Your task to perform on an android device: Open the phone app and click the voicemail tab. Image 0: 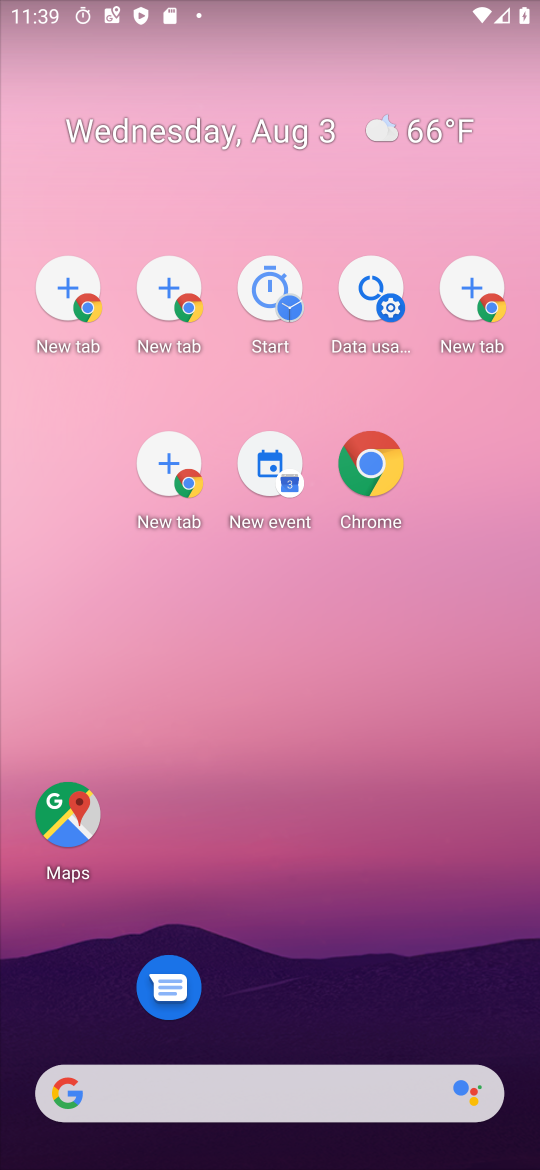
Step 0: click (50, 132)
Your task to perform on an android device: Open the phone app and click the voicemail tab. Image 1: 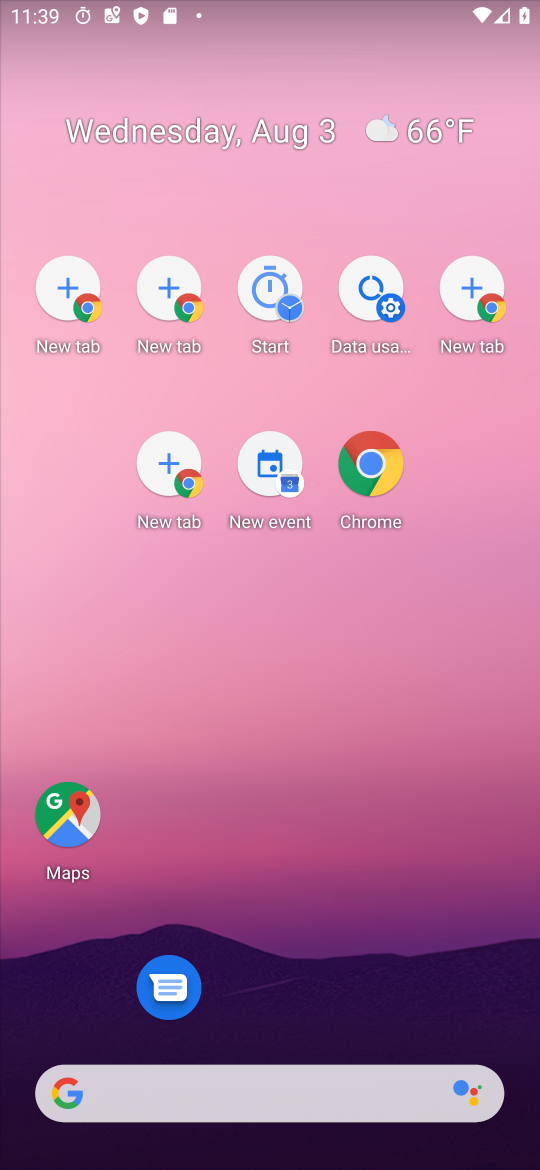
Step 1: drag from (351, 1079) to (308, 452)
Your task to perform on an android device: Open the phone app and click the voicemail tab. Image 2: 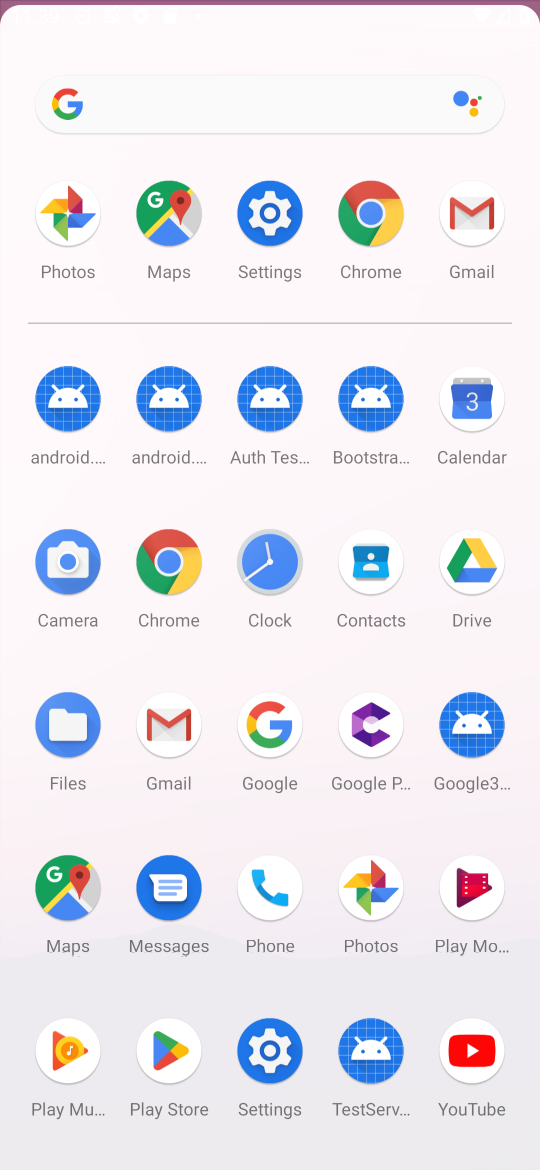
Step 2: click (208, 261)
Your task to perform on an android device: Open the phone app and click the voicemail tab. Image 3: 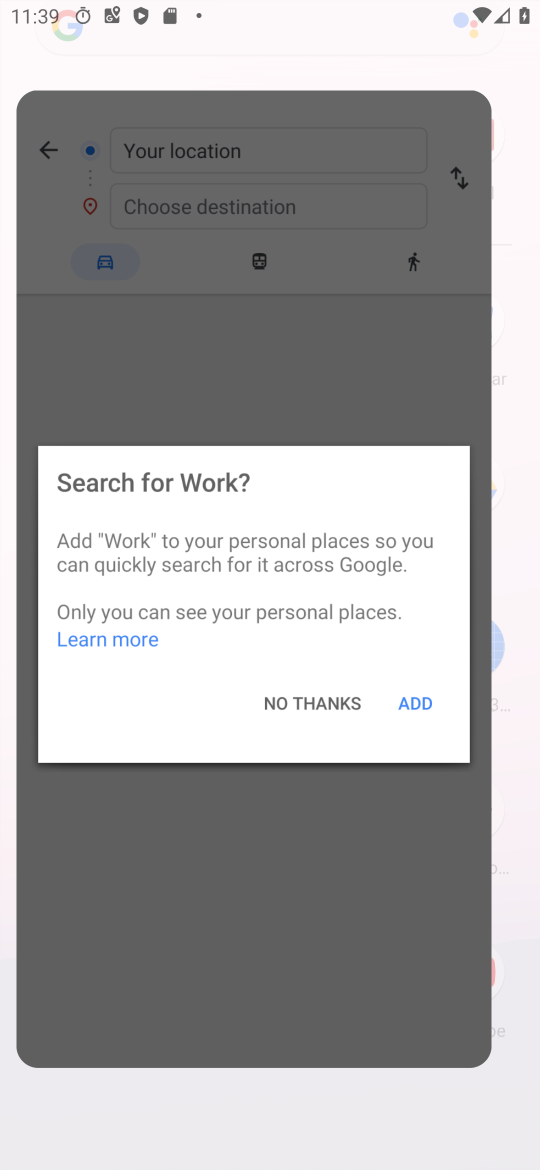
Step 3: click (265, 863)
Your task to perform on an android device: Open the phone app and click the voicemail tab. Image 4: 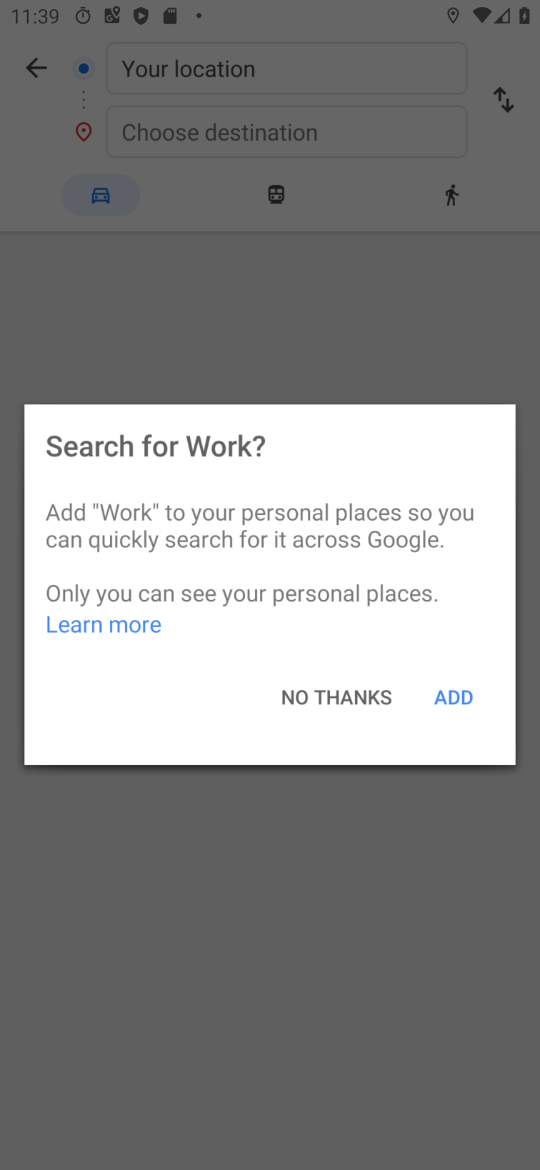
Step 4: click (265, 866)
Your task to perform on an android device: Open the phone app and click the voicemail tab. Image 5: 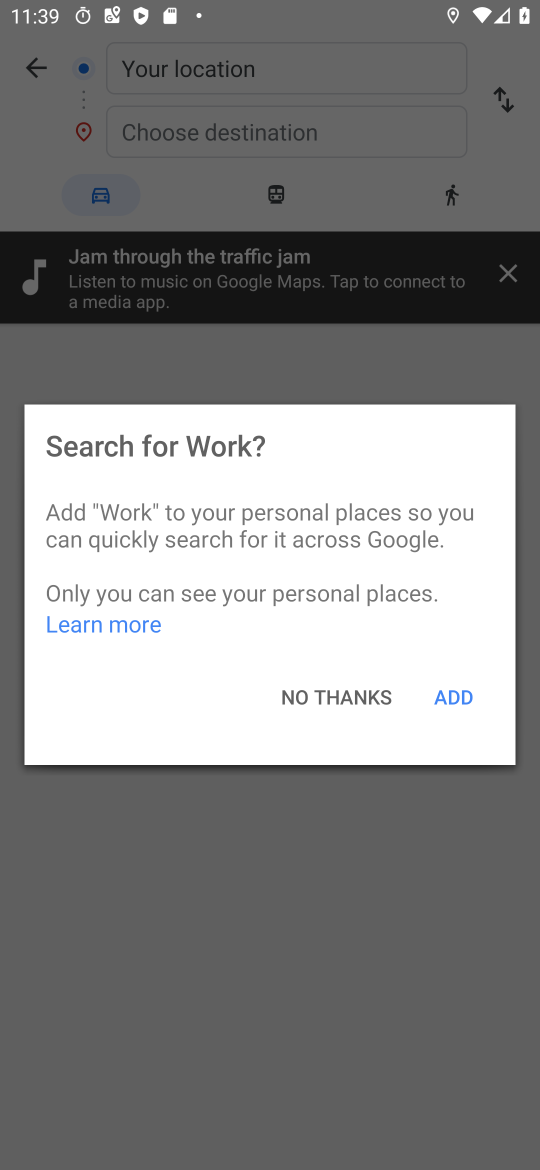
Step 5: click (321, 677)
Your task to perform on an android device: Open the phone app and click the voicemail tab. Image 6: 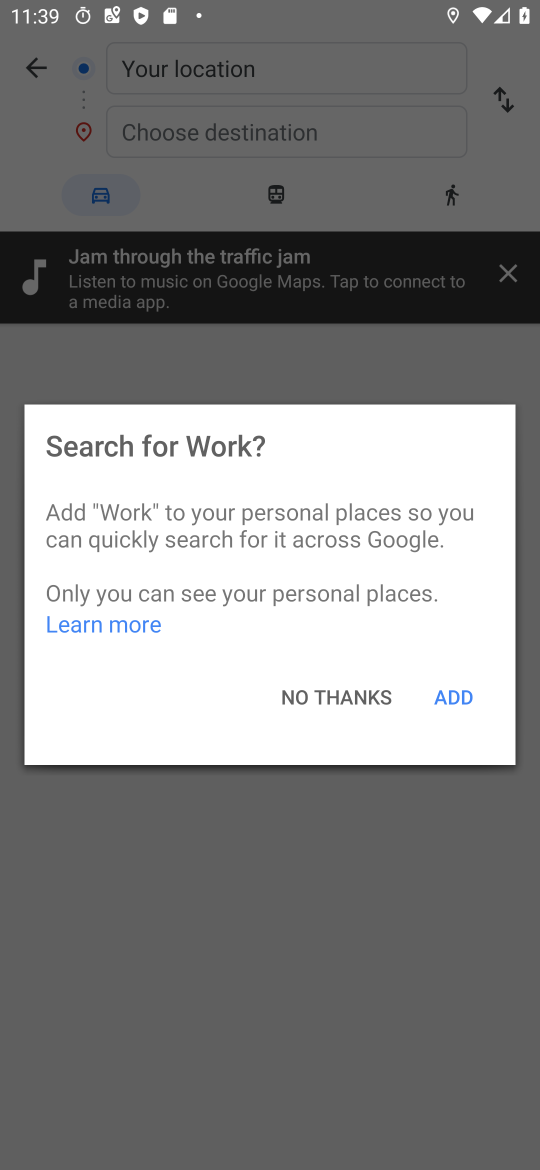
Step 6: click (324, 678)
Your task to perform on an android device: Open the phone app and click the voicemail tab. Image 7: 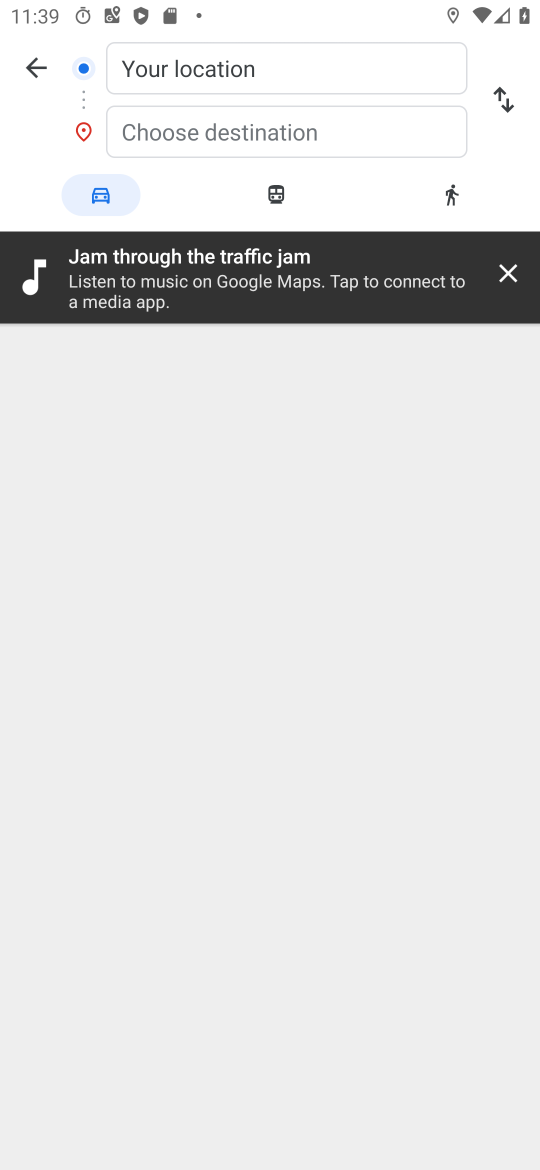
Step 7: click (54, 85)
Your task to perform on an android device: Open the phone app and click the voicemail tab. Image 8: 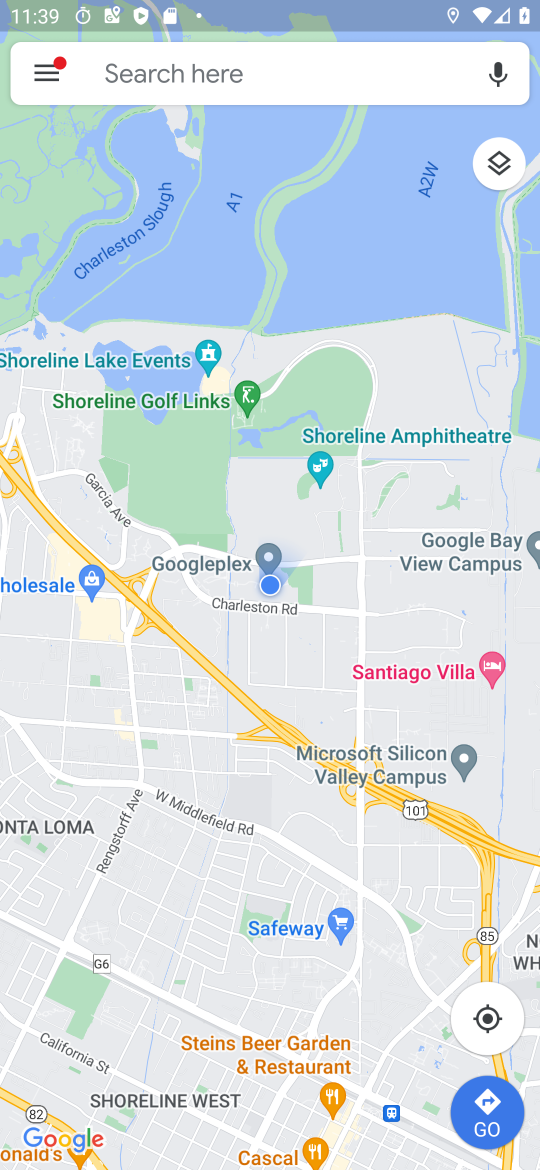
Step 8: press back button
Your task to perform on an android device: Open the phone app and click the voicemail tab. Image 9: 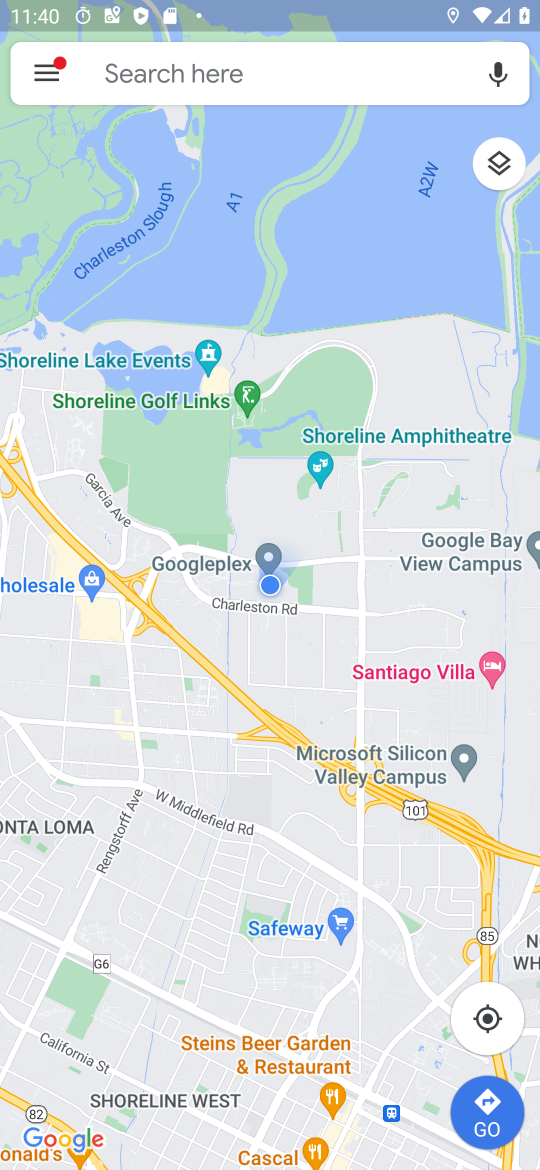
Step 9: press back button
Your task to perform on an android device: Open the phone app and click the voicemail tab. Image 10: 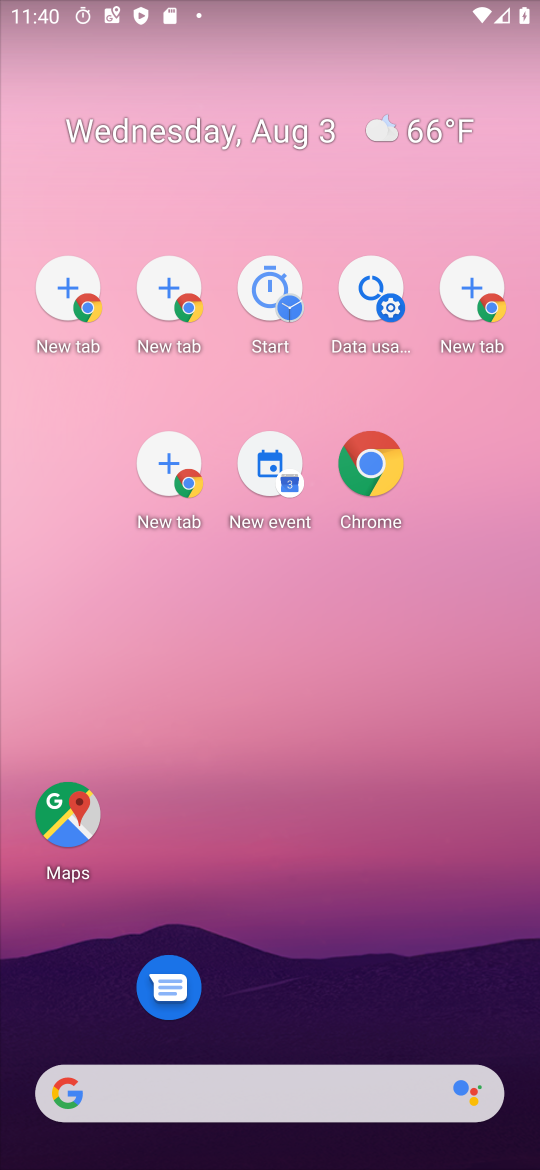
Step 10: drag from (313, 693) to (276, 296)
Your task to perform on an android device: Open the phone app and click the voicemail tab. Image 11: 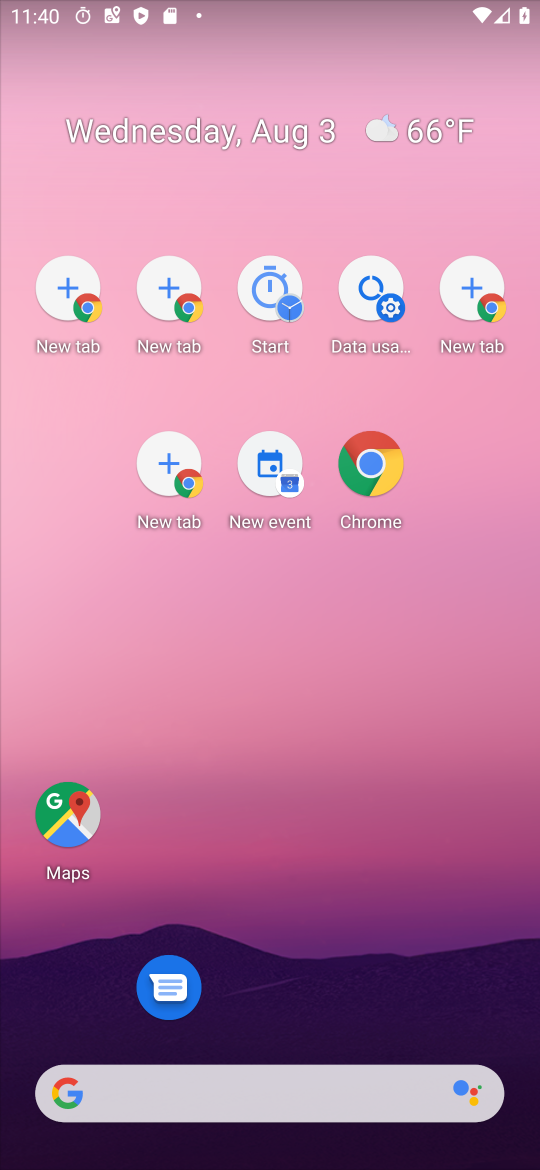
Step 11: drag from (300, 991) to (276, 293)
Your task to perform on an android device: Open the phone app and click the voicemail tab. Image 12: 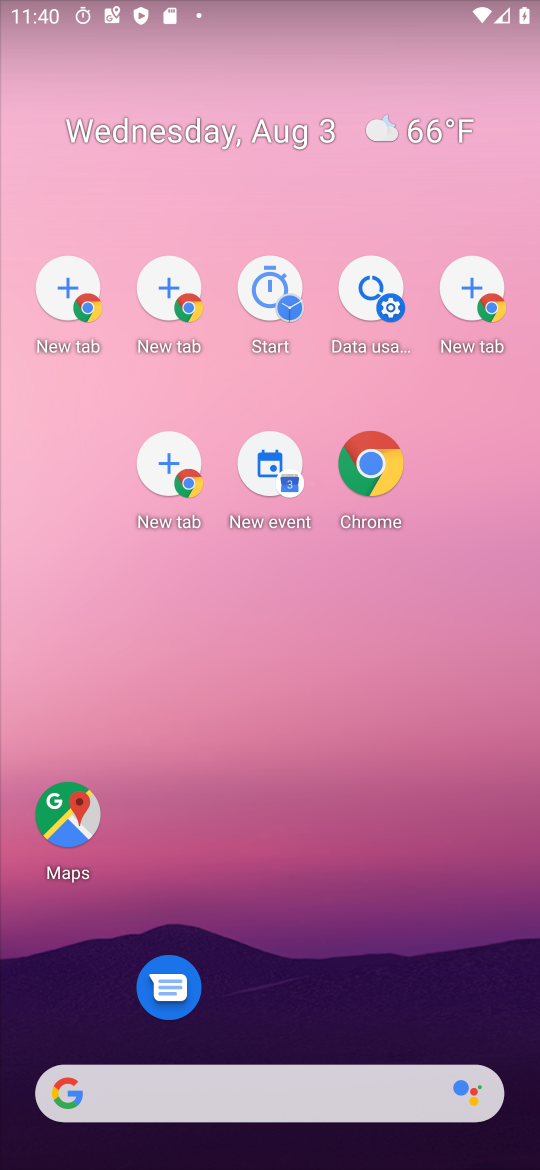
Step 12: drag from (268, 769) to (268, 215)
Your task to perform on an android device: Open the phone app and click the voicemail tab. Image 13: 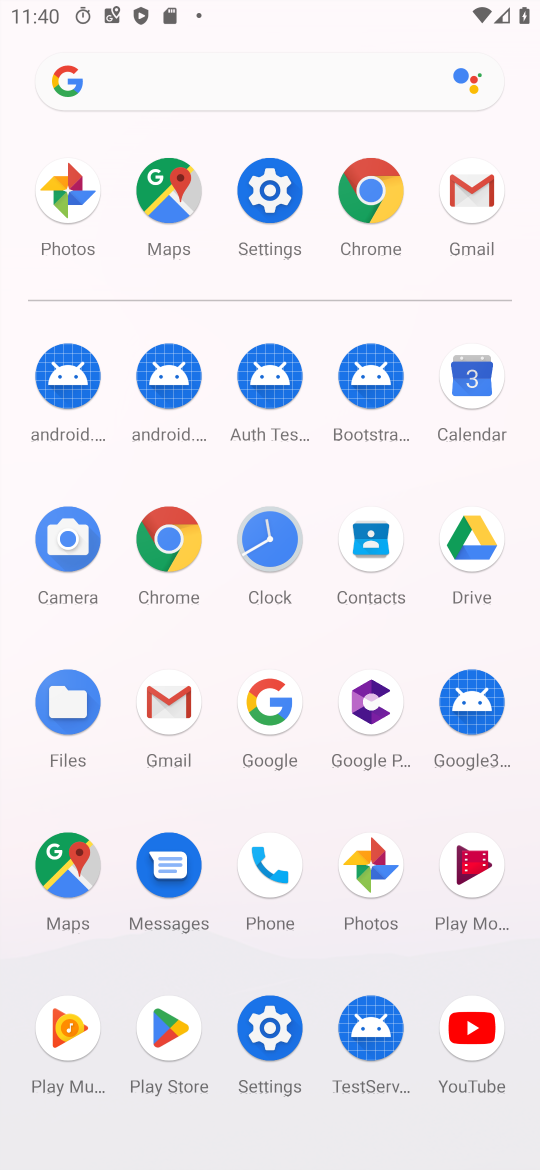
Step 13: click (281, 870)
Your task to perform on an android device: Open the phone app and click the voicemail tab. Image 14: 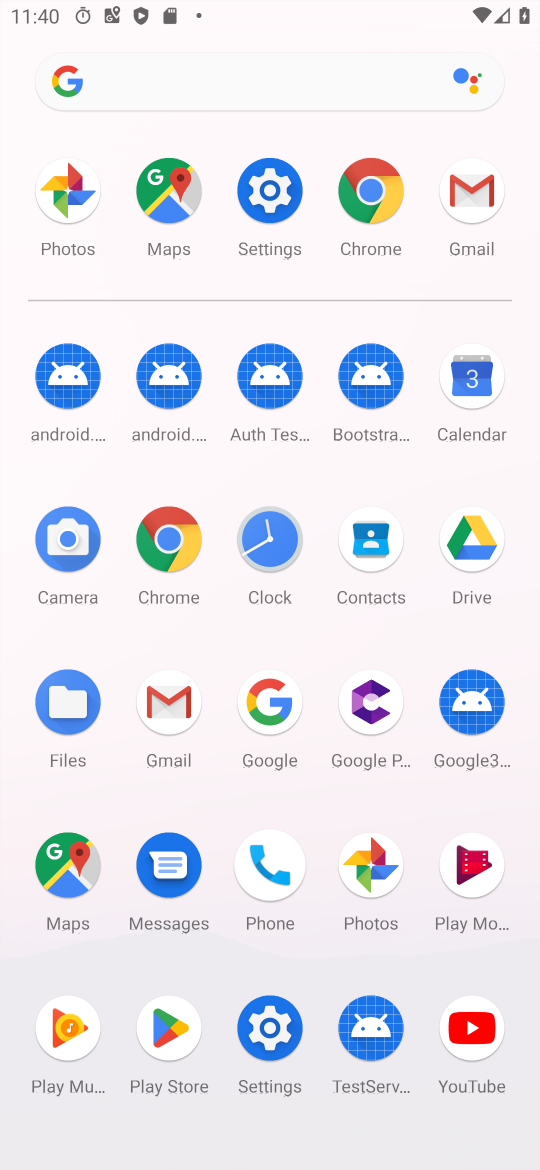
Step 14: drag from (278, 873) to (326, 852)
Your task to perform on an android device: Open the phone app and click the voicemail tab. Image 15: 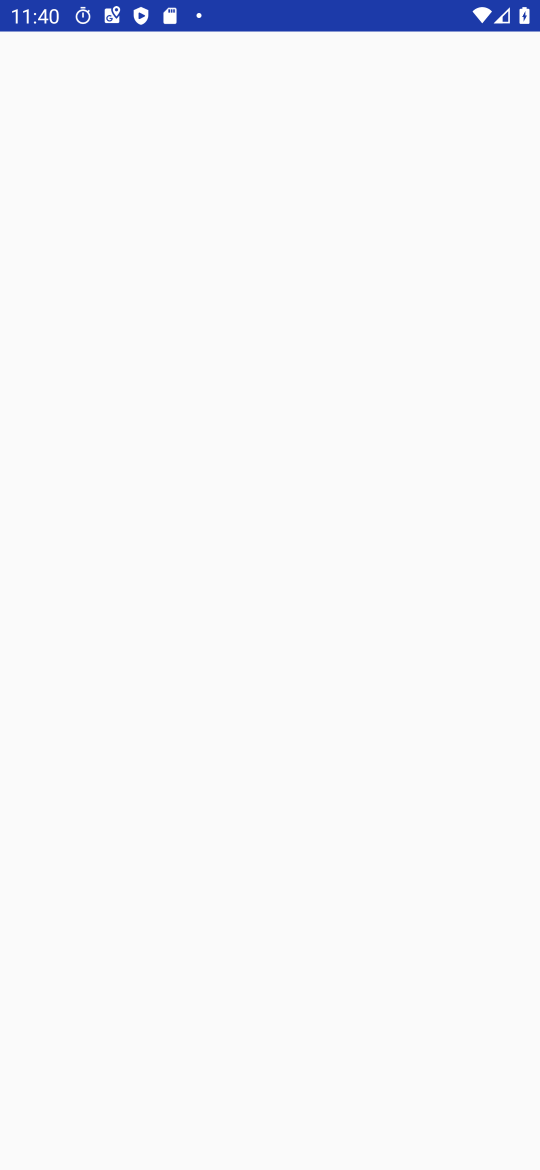
Step 15: click (327, 850)
Your task to perform on an android device: Open the phone app and click the voicemail tab. Image 16: 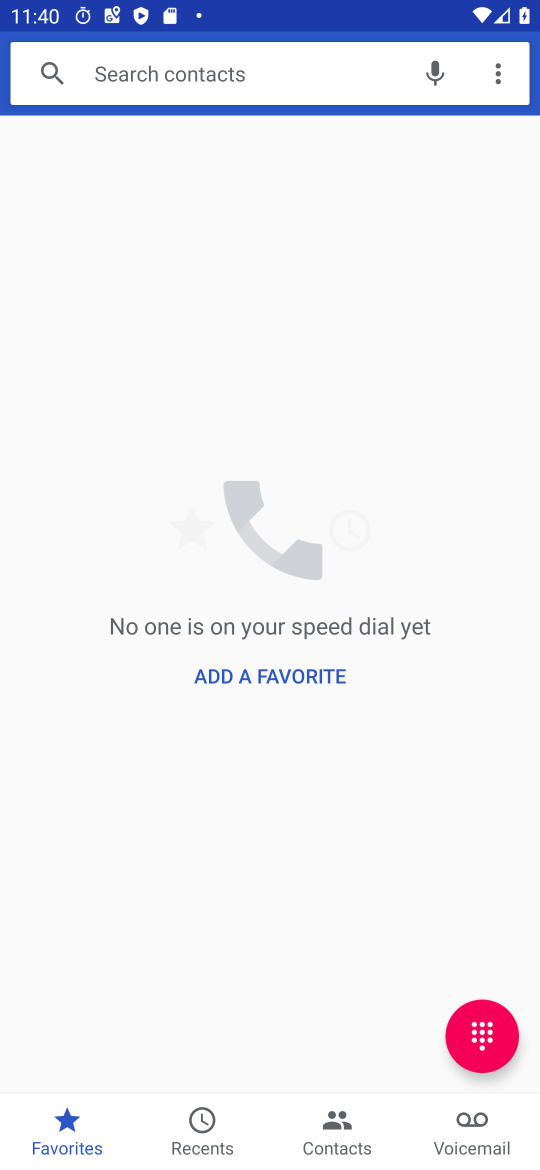
Step 16: click (486, 1114)
Your task to perform on an android device: Open the phone app and click the voicemail tab. Image 17: 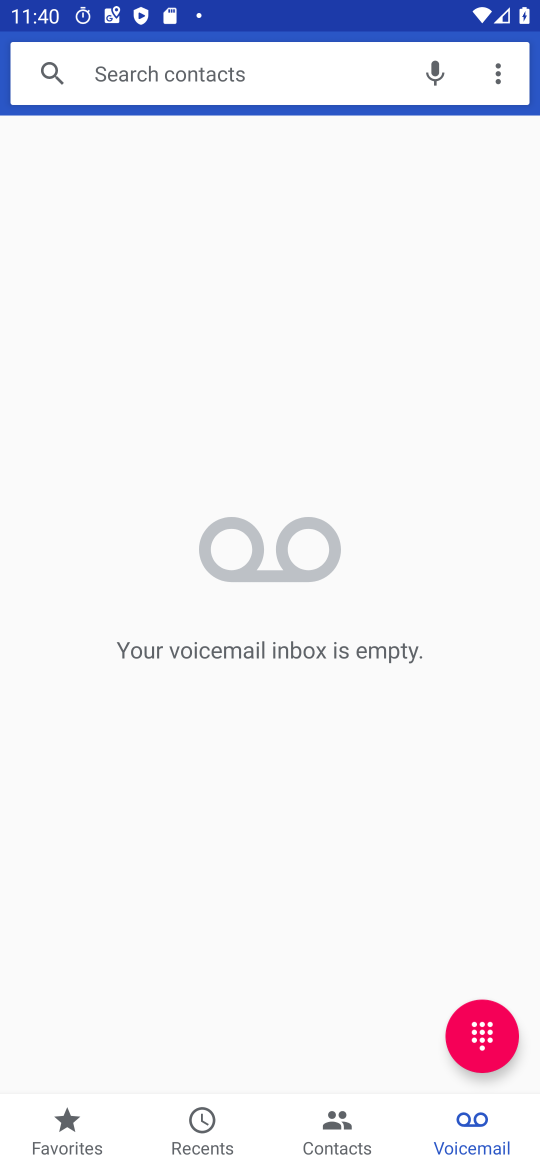
Step 17: task complete